Your task to perform on an android device: turn off location Image 0: 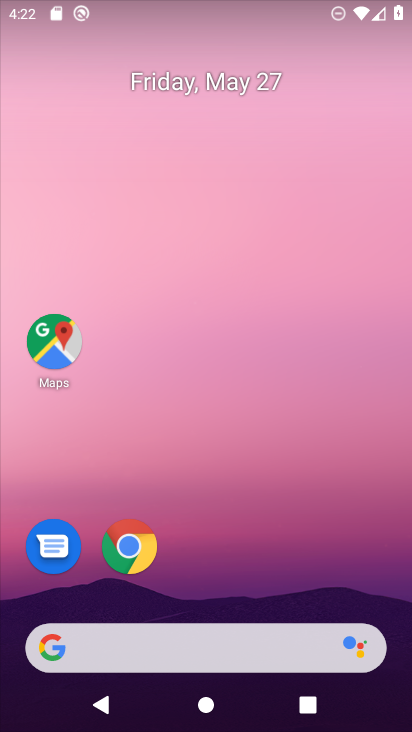
Step 0: drag from (329, 572) to (230, 96)
Your task to perform on an android device: turn off location Image 1: 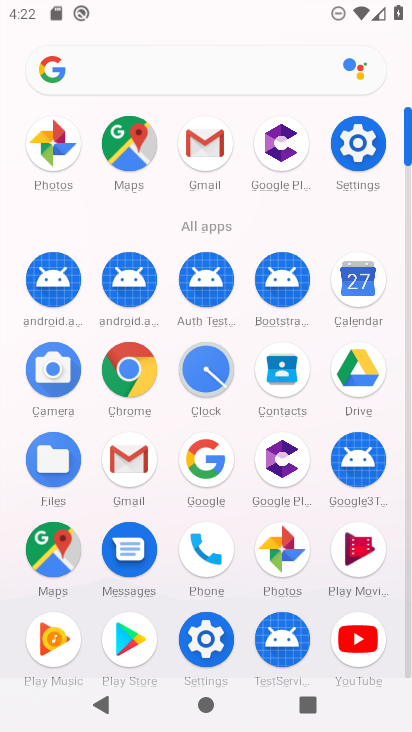
Step 1: click (356, 160)
Your task to perform on an android device: turn off location Image 2: 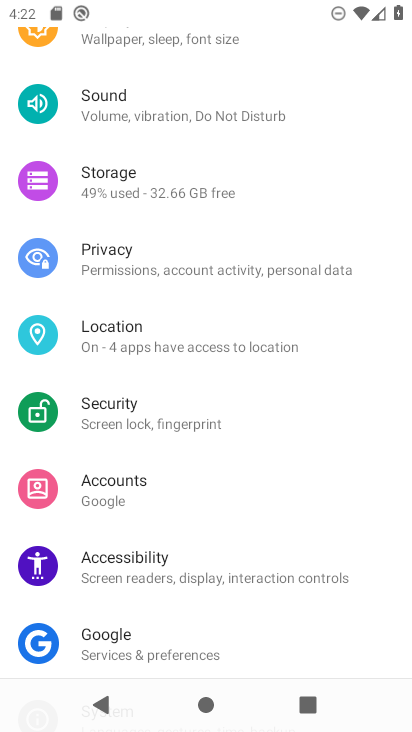
Step 2: drag from (285, 248) to (295, 455)
Your task to perform on an android device: turn off location Image 3: 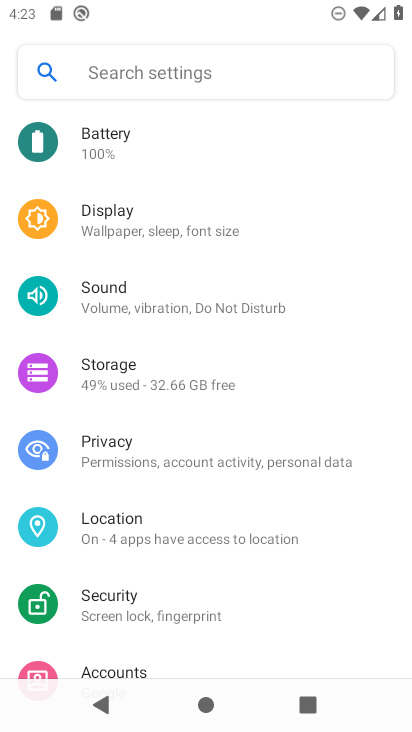
Step 3: drag from (219, 153) to (345, 559)
Your task to perform on an android device: turn off location Image 4: 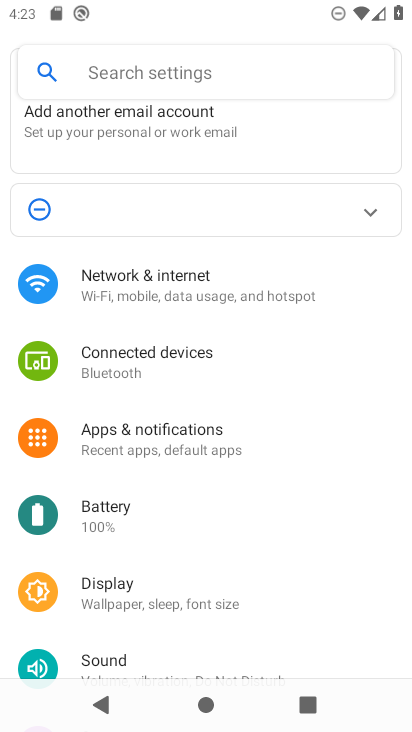
Step 4: click (231, 422)
Your task to perform on an android device: turn off location Image 5: 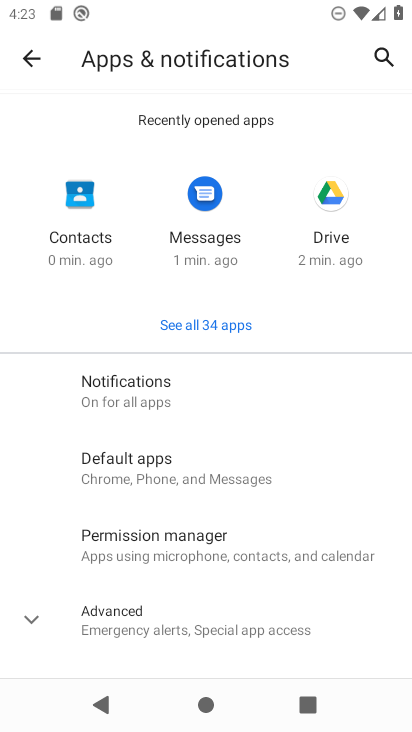
Step 5: click (16, 58)
Your task to perform on an android device: turn off location Image 6: 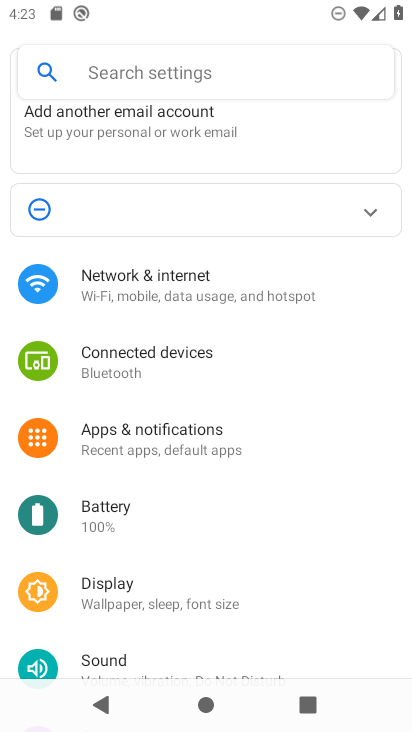
Step 6: drag from (185, 635) to (125, 115)
Your task to perform on an android device: turn off location Image 7: 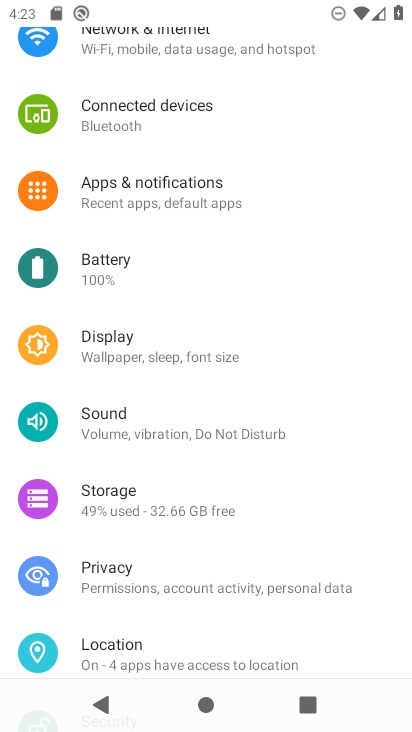
Step 7: click (208, 659)
Your task to perform on an android device: turn off location Image 8: 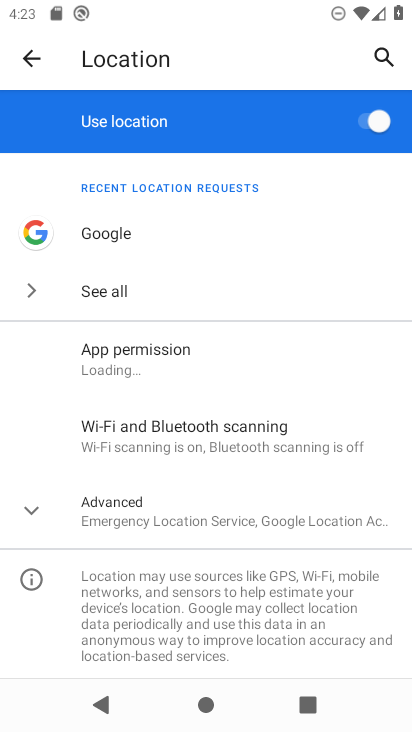
Step 8: click (353, 138)
Your task to perform on an android device: turn off location Image 9: 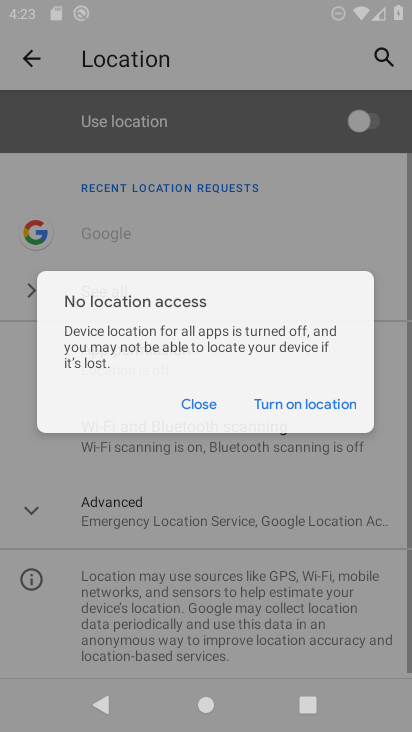
Step 9: task complete